Your task to perform on an android device: Open Chrome and go to settings Image 0: 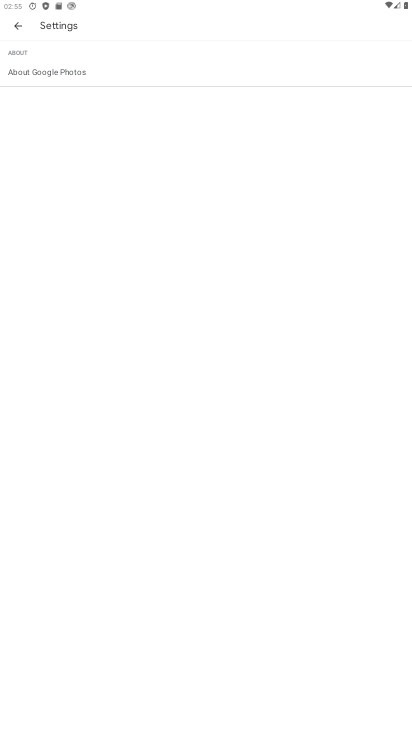
Step 0: press home button
Your task to perform on an android device: Open Chrome and go to settings Image 1: 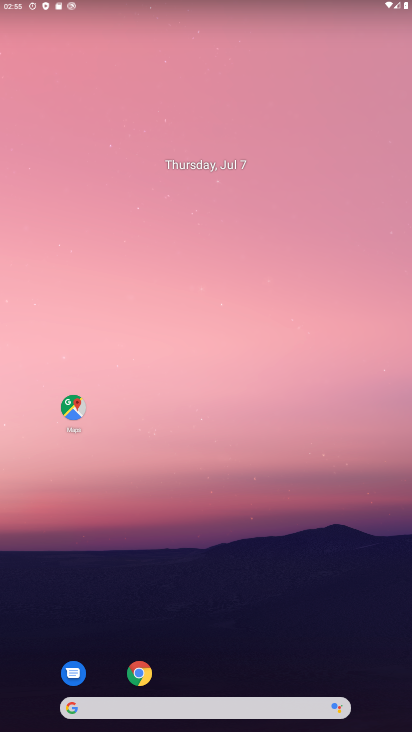
Step 1: click (148, 676)
Your task to perform on an android device: Open Chrome and go to settings Image 2: 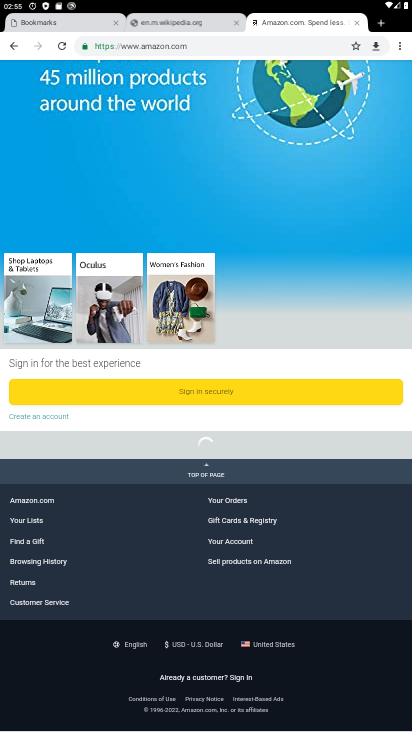
Step 2: click (397, 48)
Your task to perform on an android device: Open Chrome and go to settings Image 3: 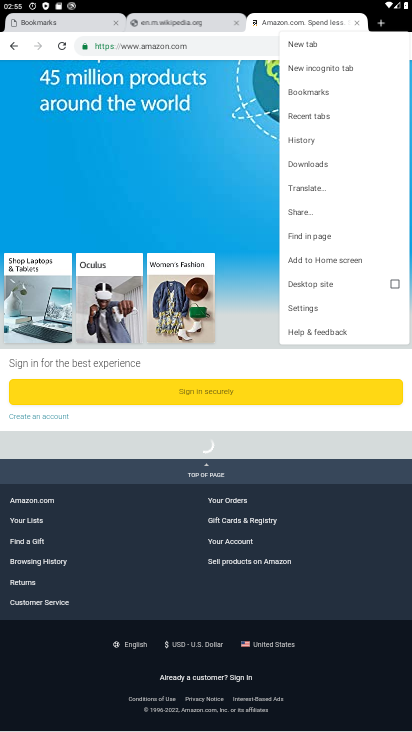
Step 3: click (313, 309)
Your task to perform on an android device: Open Chrome and go to settings Image 4: 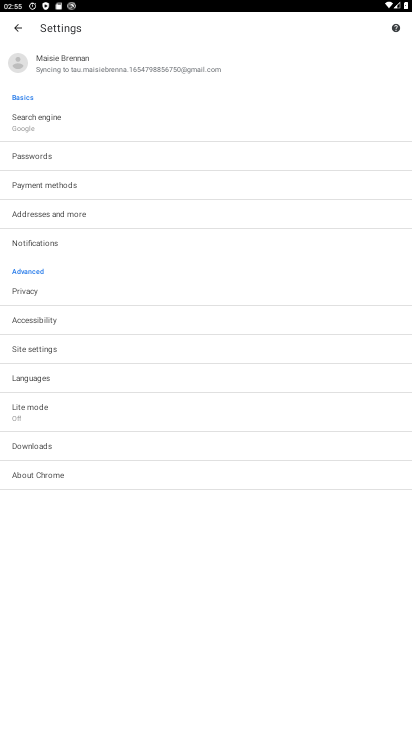
Step 4: task complete